Your task to perform on an android device: turn on translation in the chrome app Image 0: 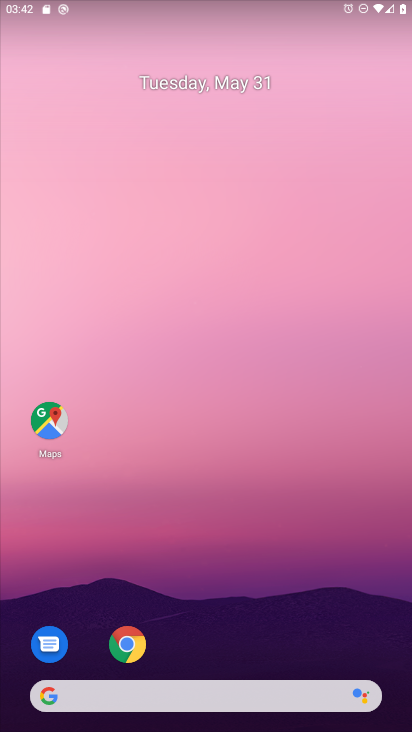
Step 0: drag from (248, 660) to (235, 43)
Your task to perform on an android device: turn on translation in the chrome app Image 1: 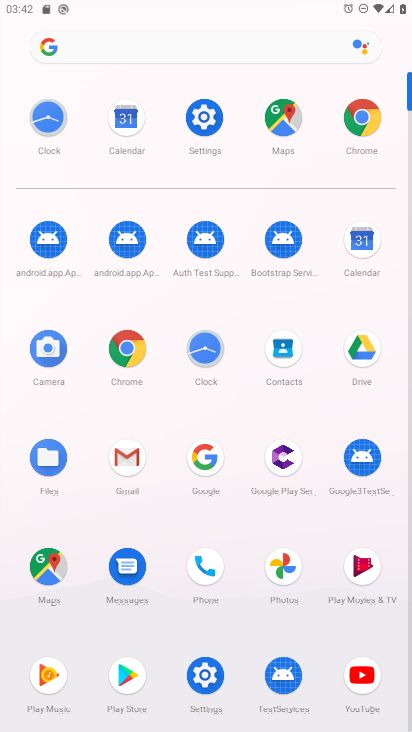
Step 1: click (132, 341)
Your task to perform on an android device: turn on translation in the chrome app Image 2: 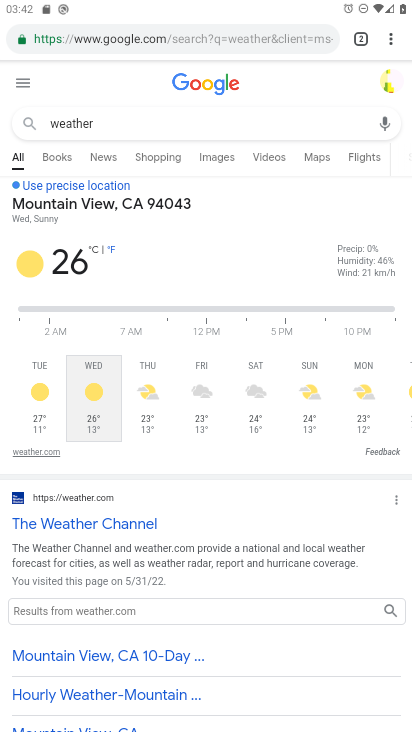
Step 2: drag from (387, 37) to (251, 436)
Your task to perform on an android device: turn on translation in the chrome app Image 3: 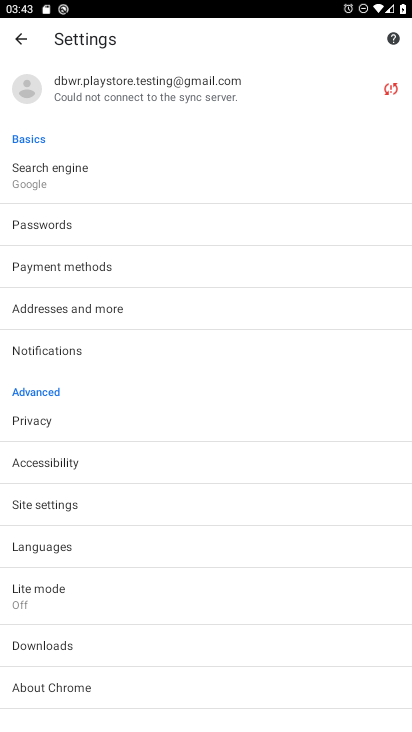
Step 3: click (70, 545)
Your task to perform on an android device: turn on translation in the chrome app Image 4: 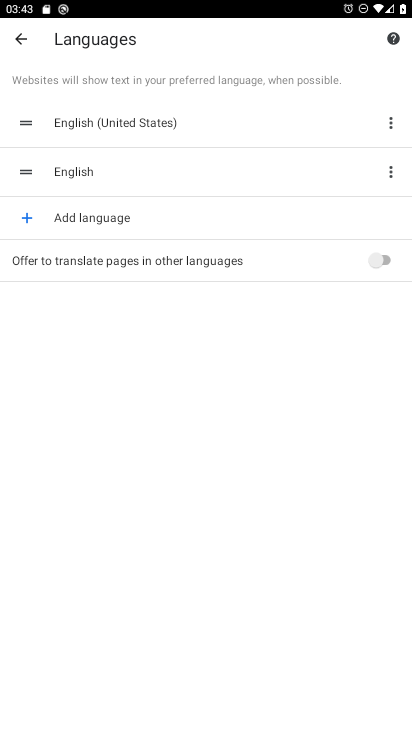
Step 4: click (370, 255)
Your task to perform on an android device: turn on translation in the chrome app Image 5: 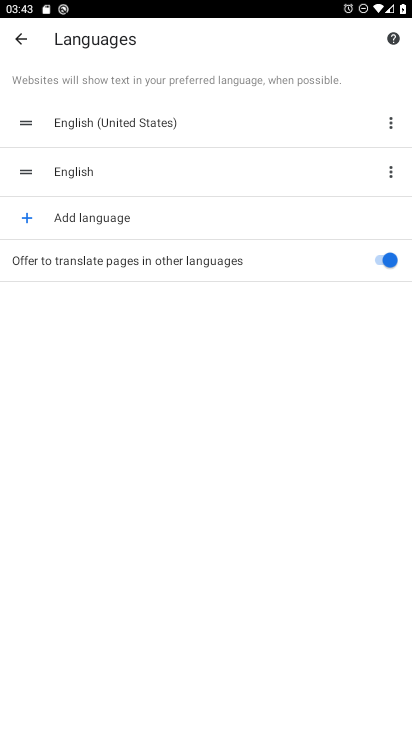
Step 5: task complete